Your task to perform on an android device: Open Google Maps Image 0: 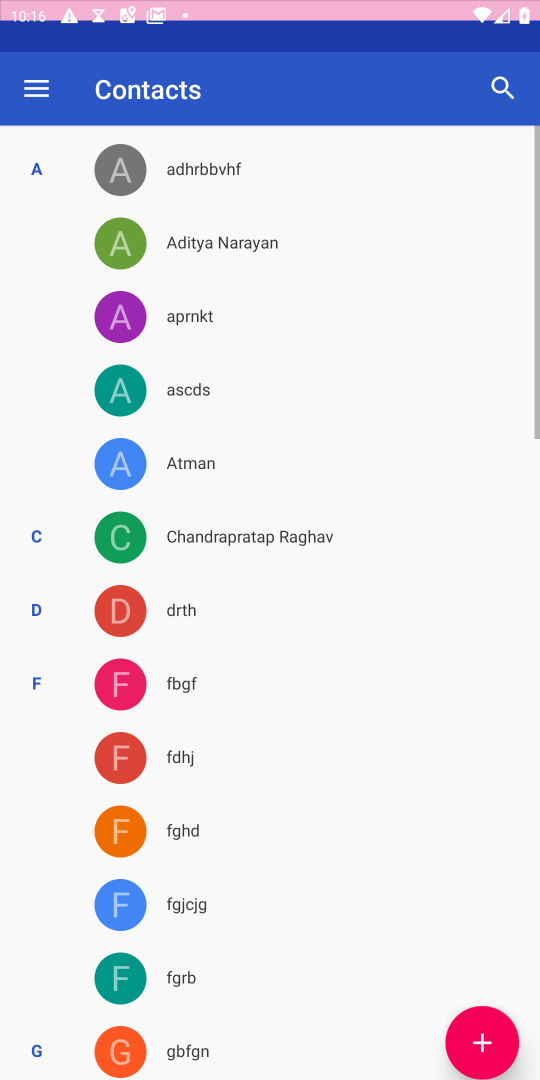
Step 0: press home button
Your task to perform on an android device: Open Google Maps Image 1: 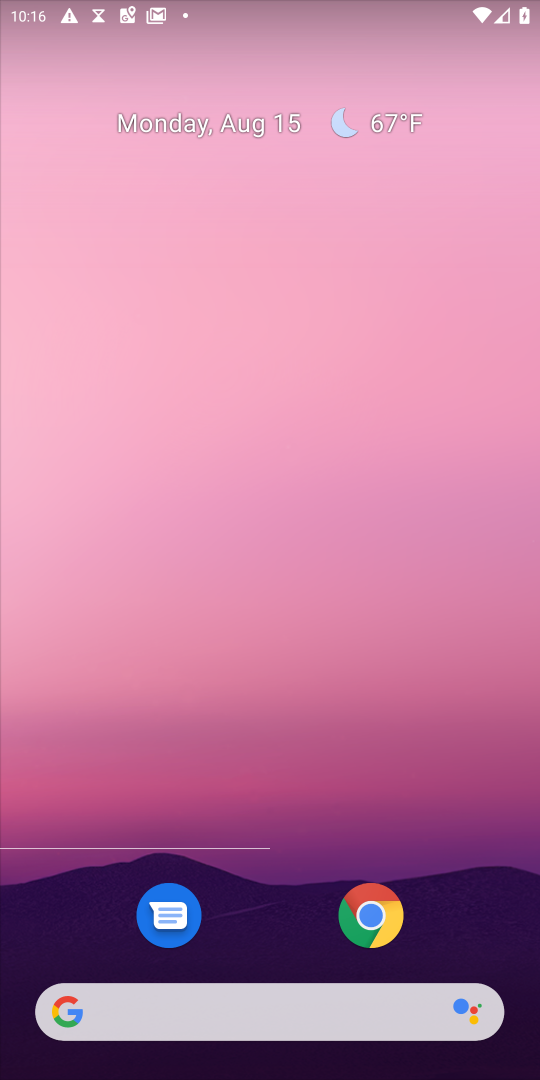
Step 1: drag from (268, 935) to (294, 252)
Your task to perform on an android device: Open Google Maps Image 2: 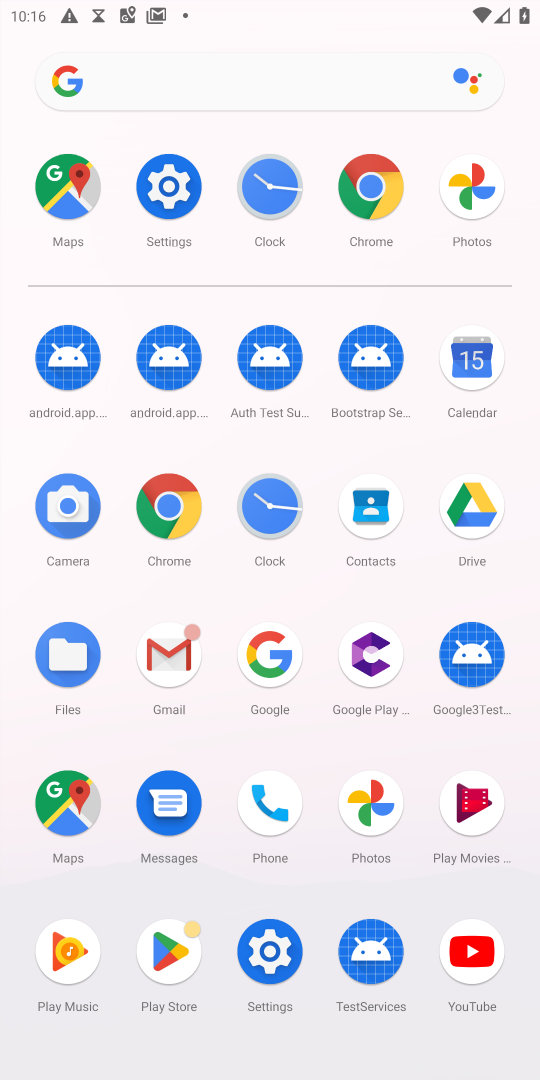
Step 2: click (84, 820)
Your task to perform on an android device: Open Google Maps Image 3: 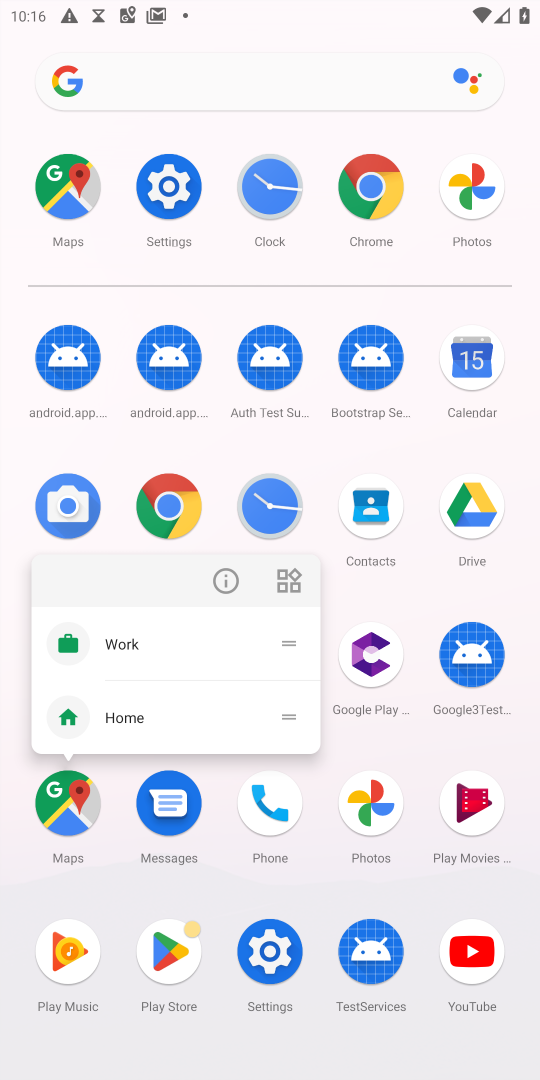
Step 3: click (73, 819)
Your task to perform on an android device: Open Google Maps Image 4: 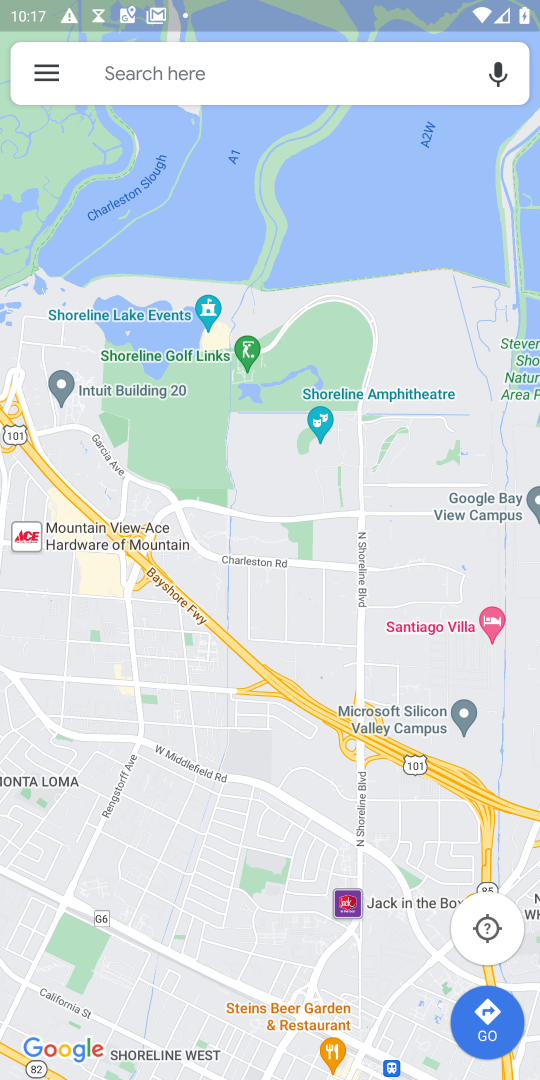
Step 4: task complete